Your task to perform on an android device: Search for vegetarian restaurants on Maps Image 0: 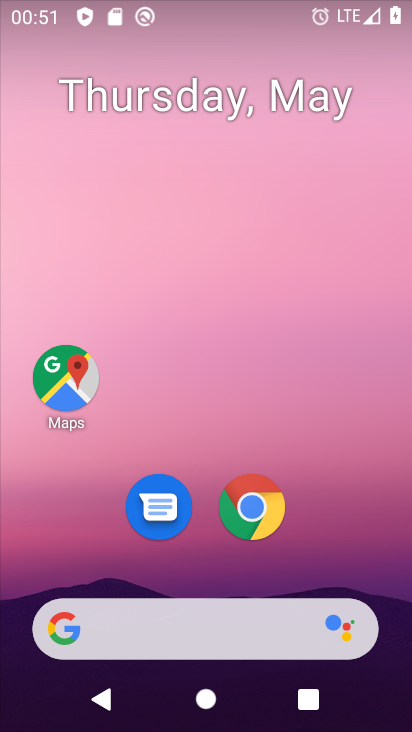
Step 0: click (187, 579)
Your task to perform on an android device: Search for vegetarian restaurants on Maps Image 1: 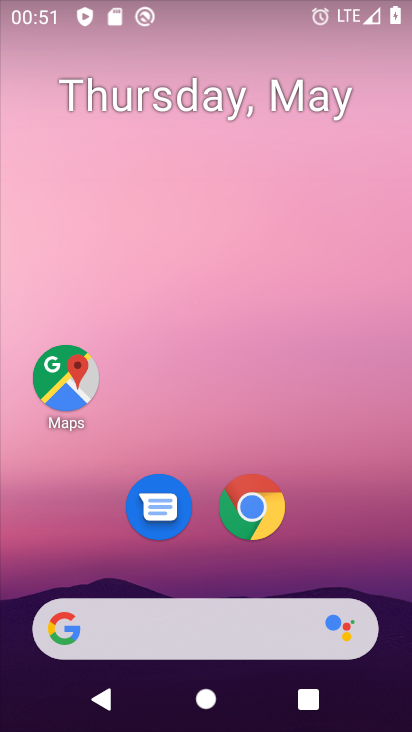
Step 1: click (57, 379)
Your task to perform on an android device: Search for vegetarian restaurants on Maps Image 2: 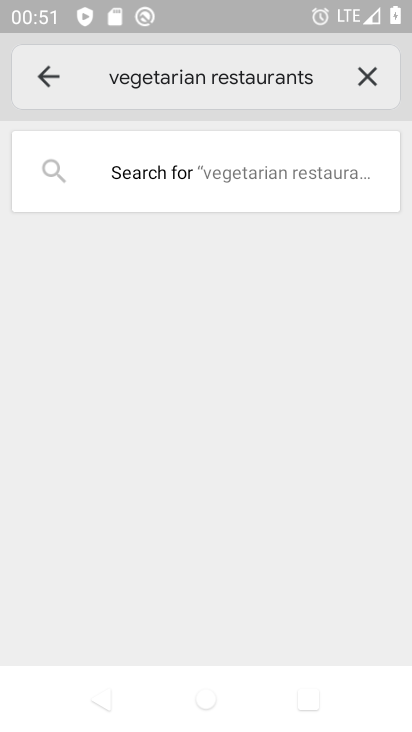
Step 2: click (354, 76)
Your task to perform on an android device: Search for vegetarian restaurants on Maps Image 3: 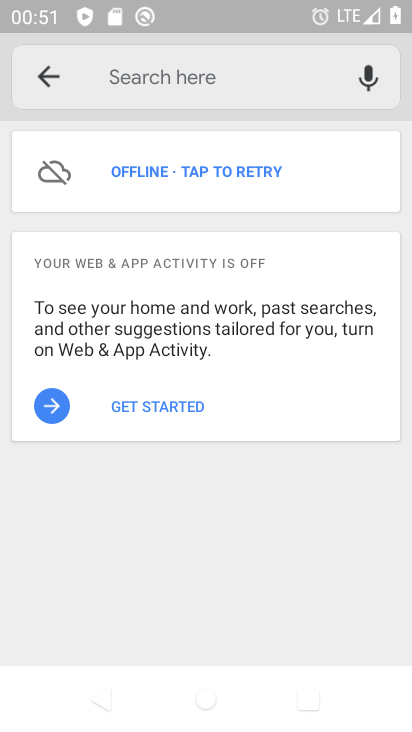
Step 3: click (198, 89)
Your task to perform on an android device: Search for vegetarian restaurants on Maps Image 4: 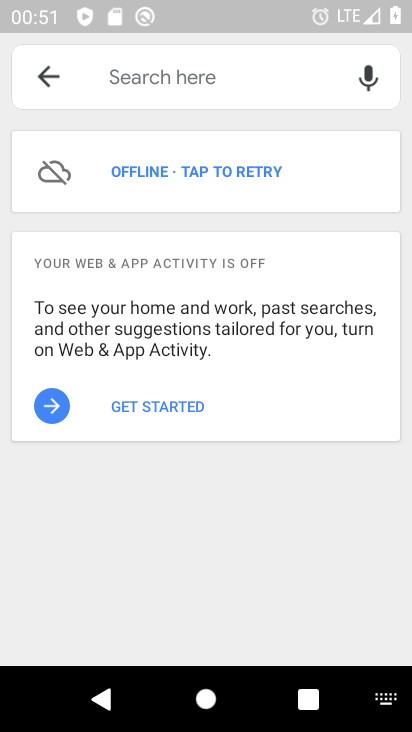
Step 4: type "vegetarian restaurants"
Your task to perform on an android device: Search for vegetarian restaurants on Maps Image 5: 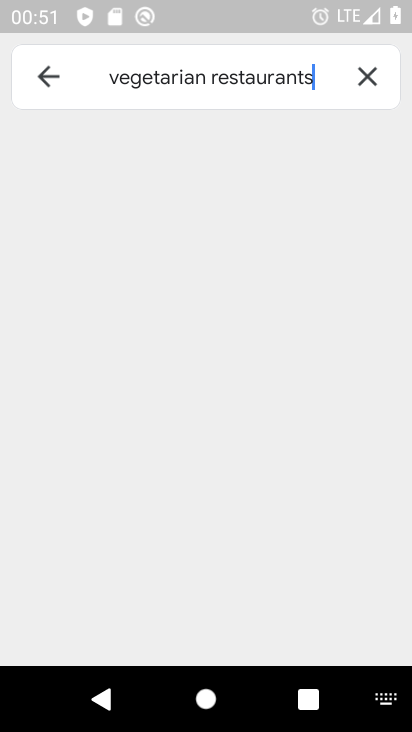
Step 5: task complete